Your task to perform on an android device: turn notification dots off Image 0: 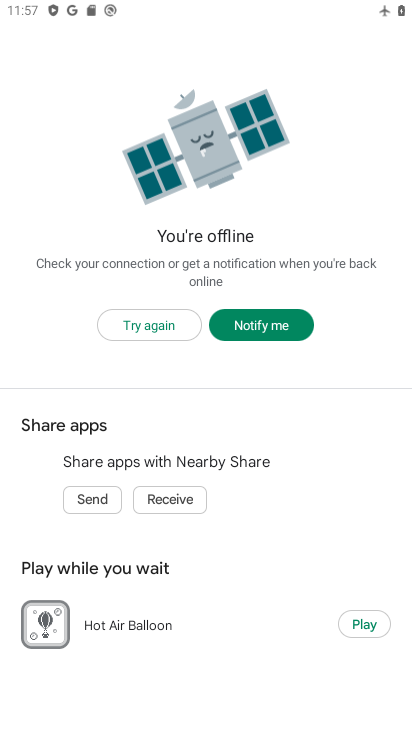
Step 0: drag from (200, 655) to (204, 56)
Your task to perform on an android device: turn notification dots off Image 1: 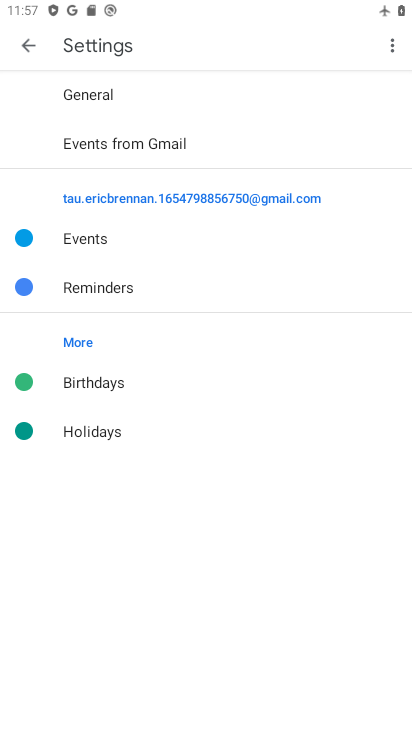
Step 1: press home button
Your task to perform on an android device: turn notification dots off Image 2: 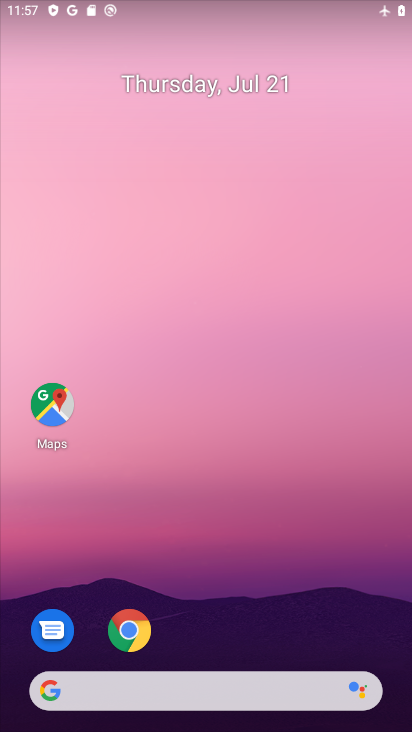
Step 2: drag from (197, 652) to (194, 70)
Your task to perform on an android device: turn notification dots off Image 3: 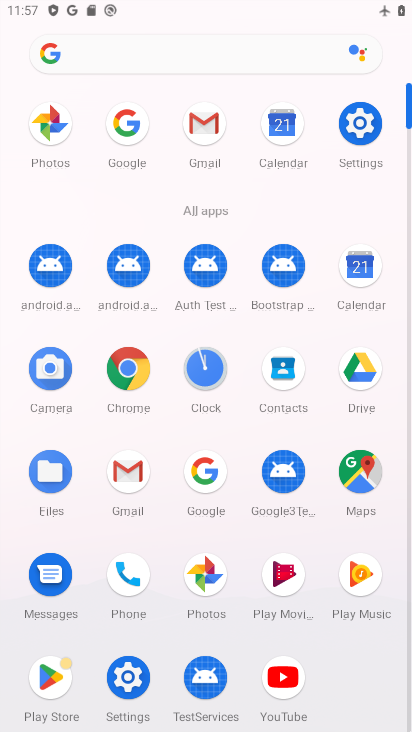
Step 3: click (369, 120)
Your task to perform on an android device: turn notification dots off Image 4: 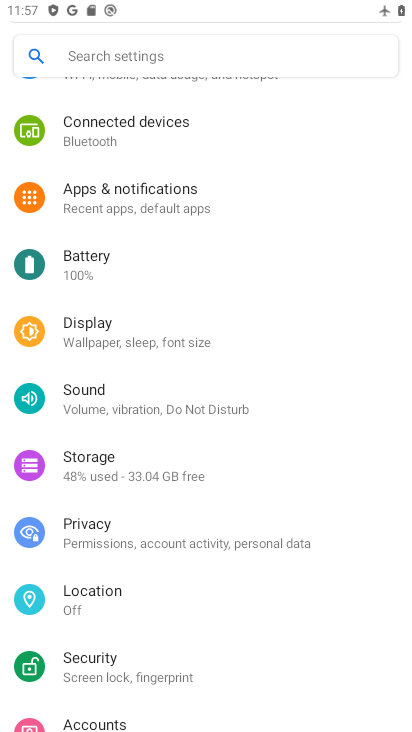
Step 4: click (105, 201)
Your task to perform on an android device: turn notification dots off Image 5: 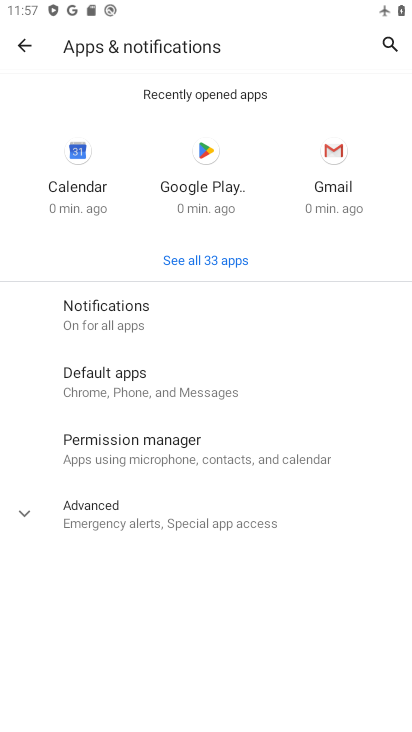
Step 5: click (112, 310)
Your task to perform on an android device: turn notification dots off Image 6: 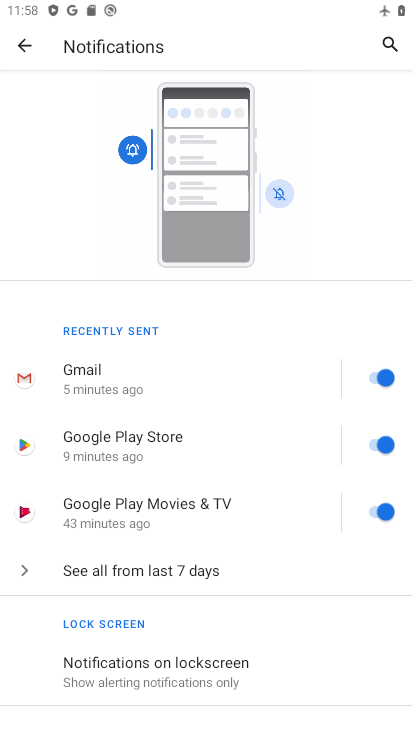
Step 6: drag from (153, 609) to (126, 124)
Your task to perform on an android device: turn notification dots off Image 7: 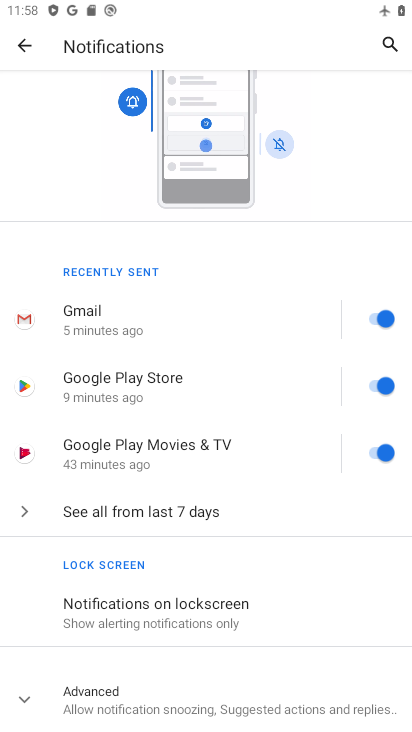
Step 7: click (93, 704)
Your task to perform on an android device: turn notification dots off Image 8: 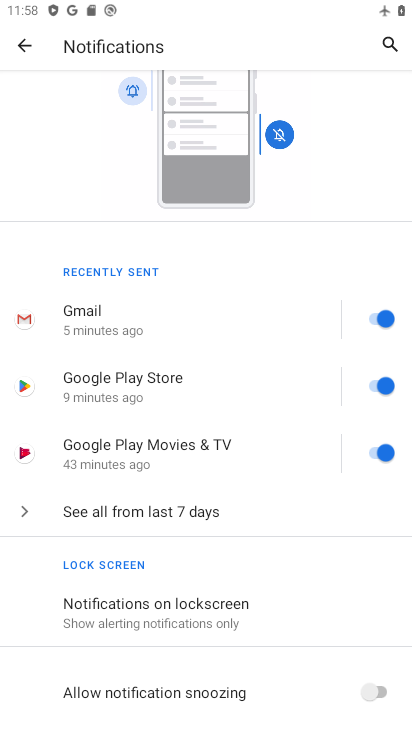
Step 8: drag from (94, 703) to (64, 219)
Your task to perform on an android device: turn notification dots off Image 9: 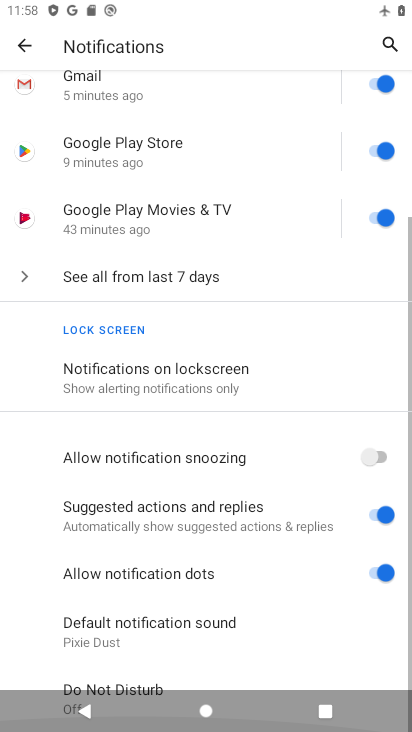
Step 9: drag from (177, 566) to (132, 233)
Your task to perform on an android device: turn notification dots off Image 10: 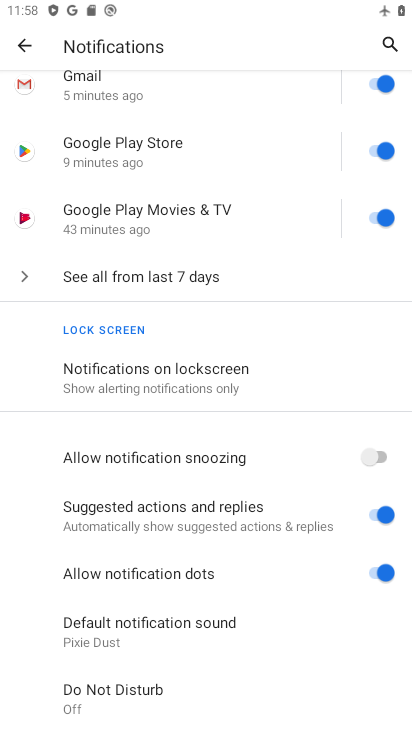
Step 10: click (383, 566)
Your task to perform on an android device: turn notification dots off Image 11: 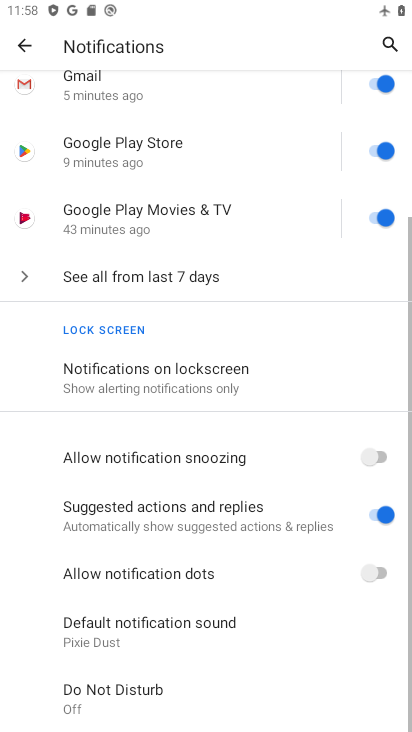
Step 11: task complete